Your task to perform on an android device: Go to calendar. Show me events next week Image 0: 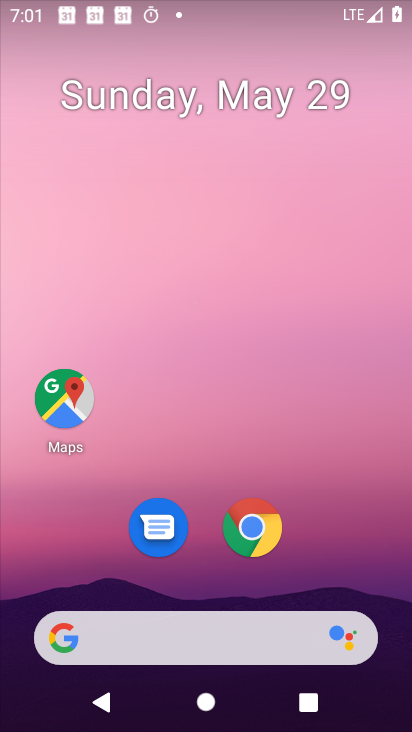
Step 0: drag from (397, 658) to (258, 0)
Your task to perform on an android device: Go to calendar. Show me events next week Image 1: 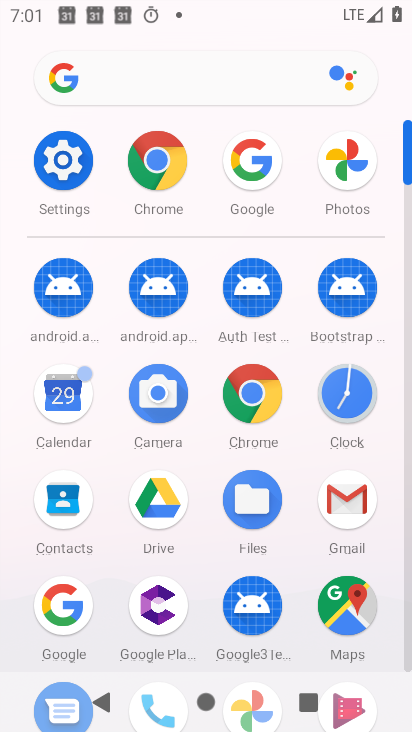
Step 1: click (67, 436)
Your task to perform on an android device: Go to calendar. Show me events next week Image 2: 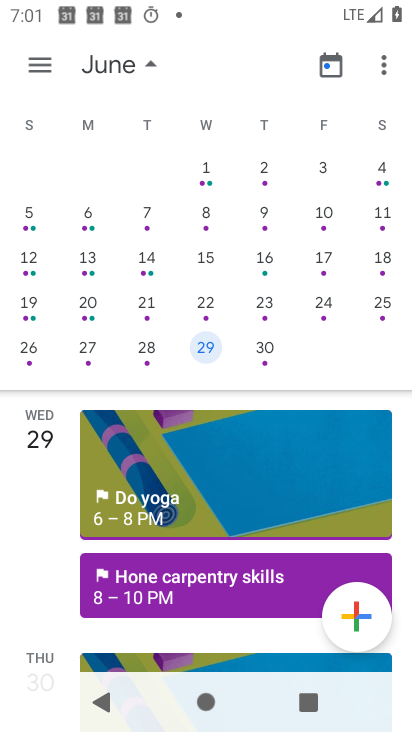
Step 2: task complete